Your task to perform on an android device: Go to privacy settings Image 0: 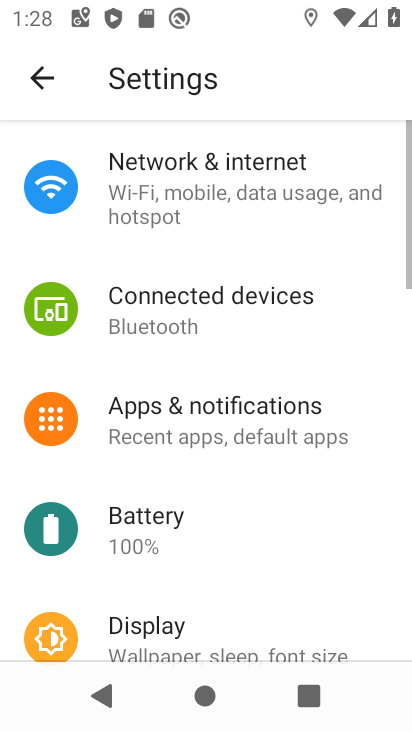
Step 0: drag from (312, 204) to (327, 89)
Your task to perform on an android device: Go to privacy settings Image 1: 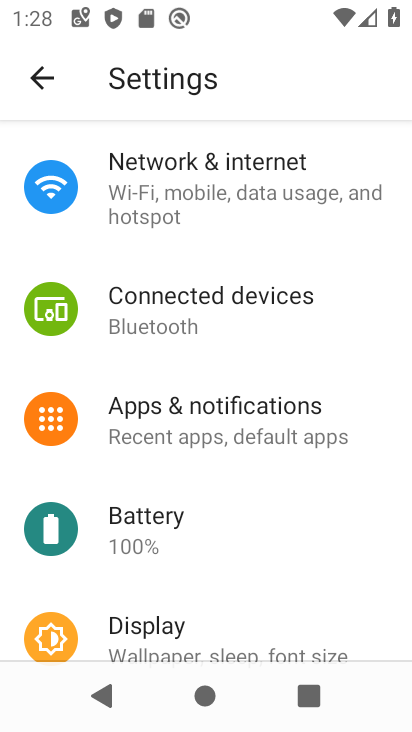
Step 1: drag from (161, 629) to (206, 124)
Your task to perform on an android device: Go to privacy settings Image 2: 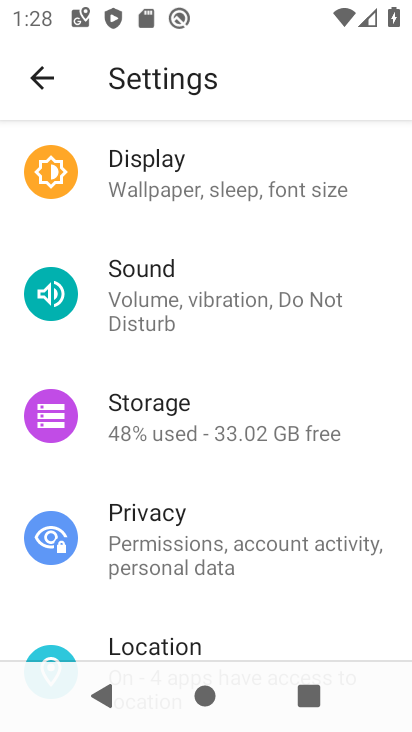
Step 2: click (141, 531)
Your task to perform on an android device: Go to privacy settings Image 3: 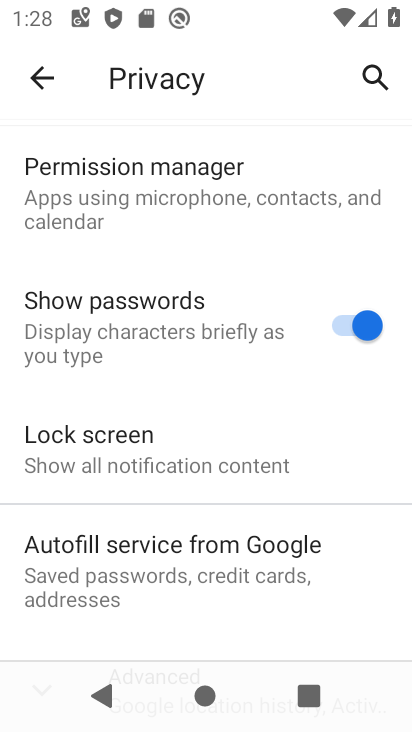
Step 3: task complete